Your task to perform on an android device: toggle notification dots Image 0: 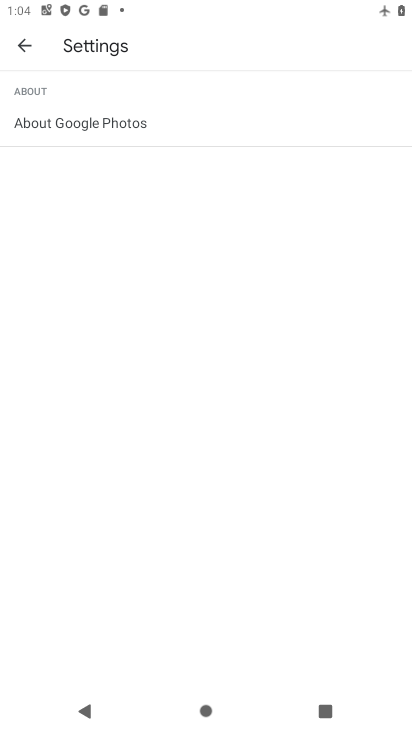
Step 0: press home button
Your task to perform on an android device: toggle notification dots Image 1: 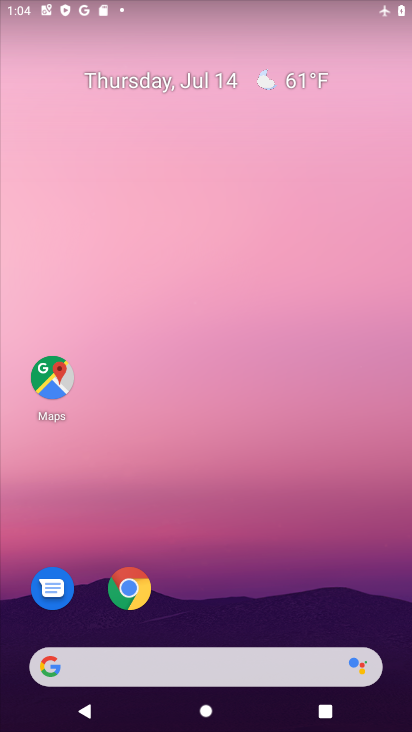
Step 1: drag from (206, 635) to (281, 9)
Your task to perform on an android device: toggle notification dots Image 2: 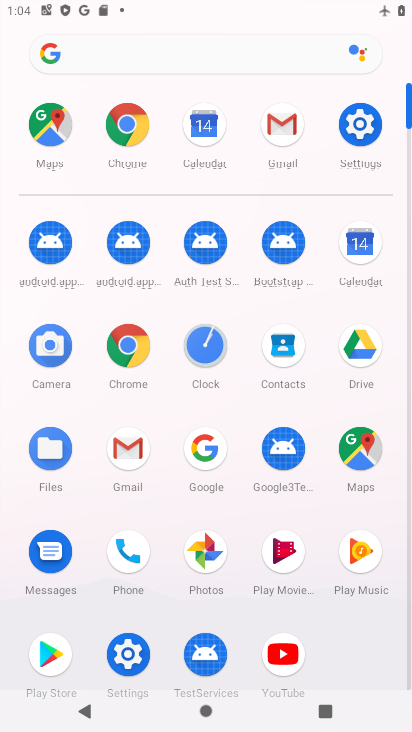
Step 2: click (131, 661)
Your task to perform on an android device: toggle notification dots Image 3: 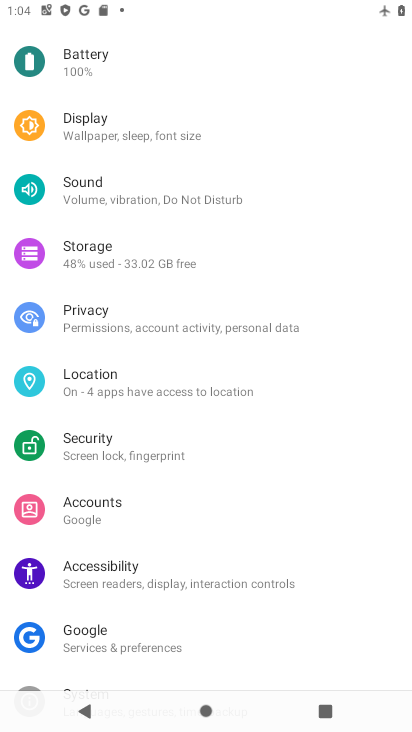
Step 3: drag from (160, 207) to (182, 435)
Your task to perform on an android device: toggle notification dots Image 4: 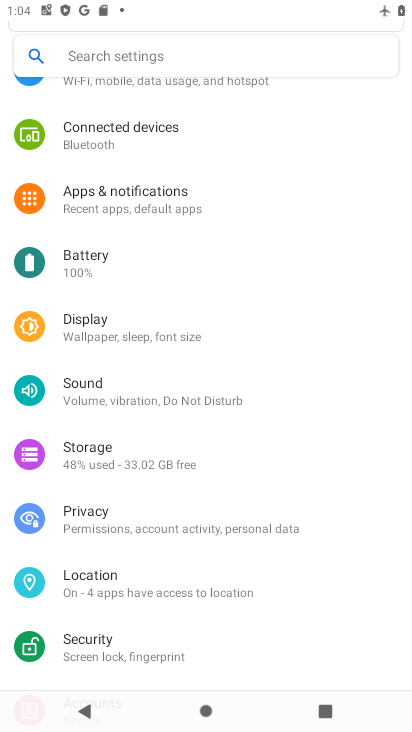
Step 4: click (179, 201)
Your task to perform on an android device: toggle notification dots Image 5: 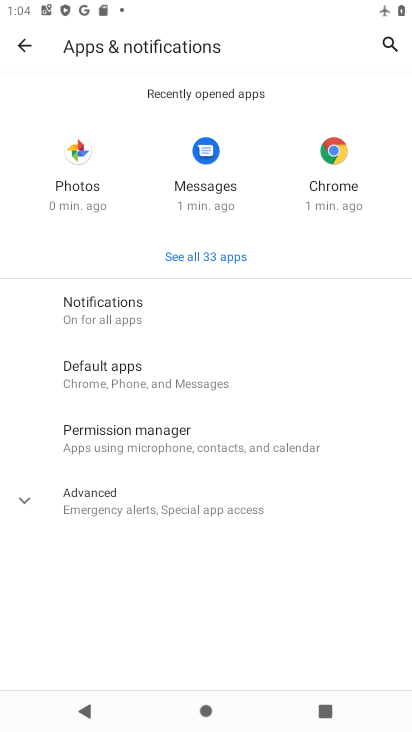
Step 5: click (144, 309)
Your task to perform on an android device: toggle notification dots Image 6: 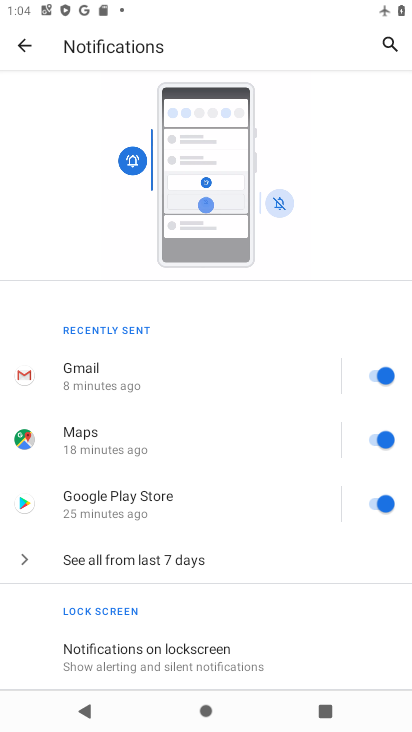
Step 6: drag from (197, 652) to (223, 501)
Your task to perform on an android device: toggle notification dots Image 7: 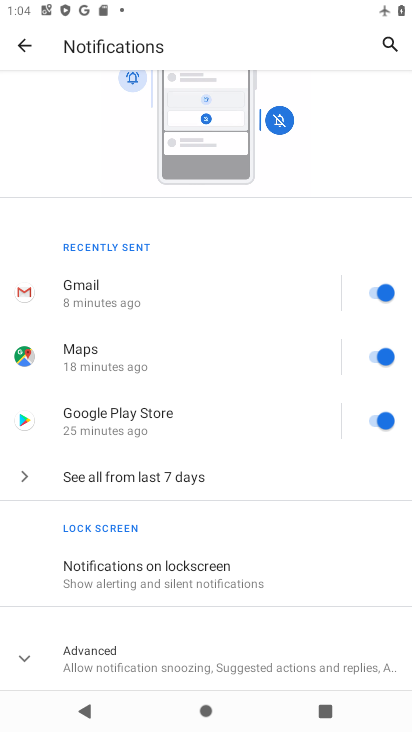
Step 7: click (208, 657)
Your task to perform on an android device: toggle notification dots Image 8: 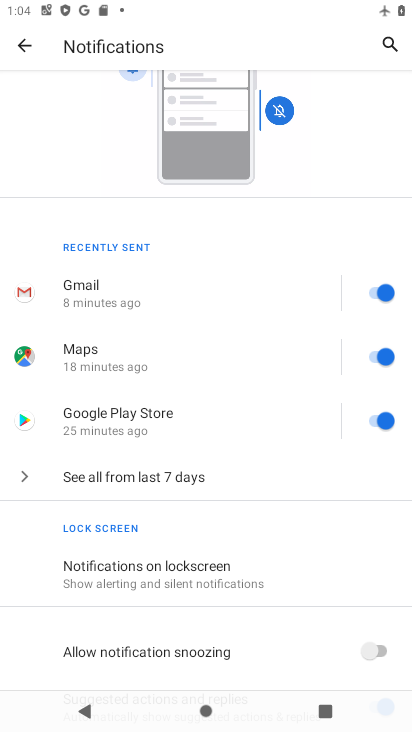
Step 8: task complete